Your task to perform on an android device: turn off location Image 0: 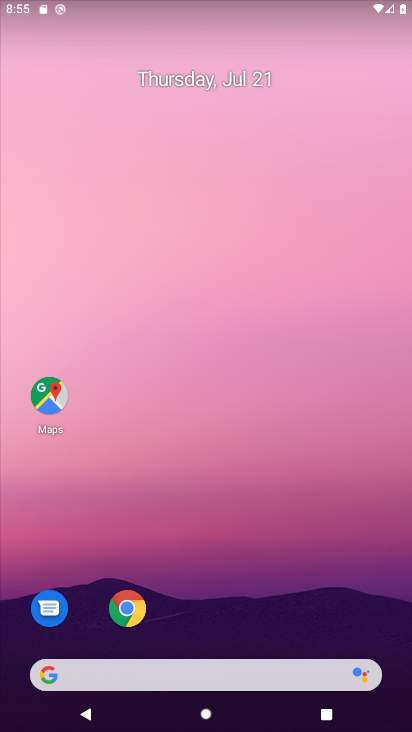
Step 0: drag from (199, 561) to (271, 210)
Your task to perform on an android device: turn off location Image 1: 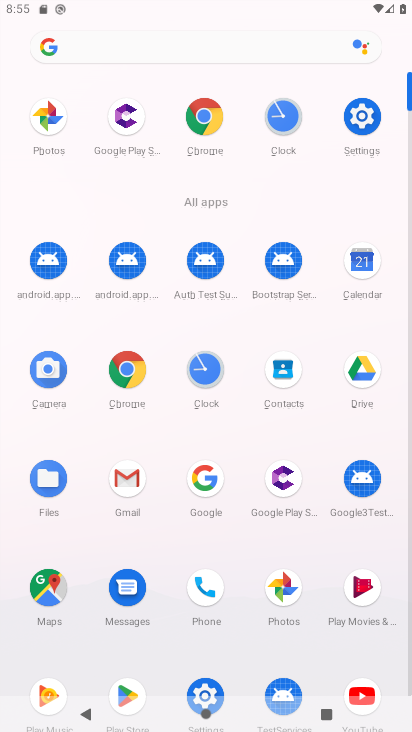
Step 1: click (356, 113)
Your task to perform on an android device: turn off location Image 2: 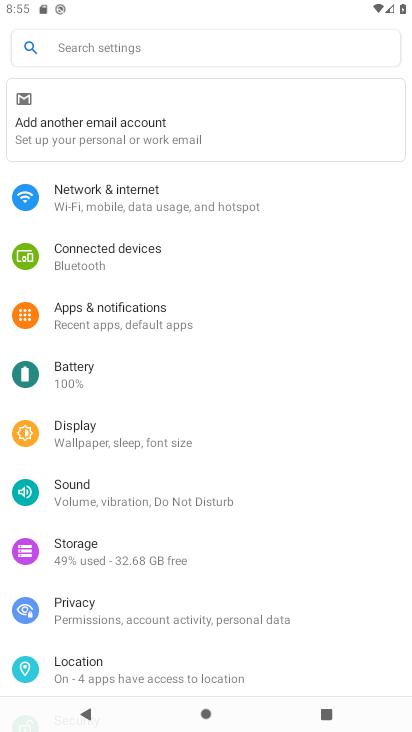
Step 2: click (89, 667)
Your task to perform on an android device: turn off location Image 3: 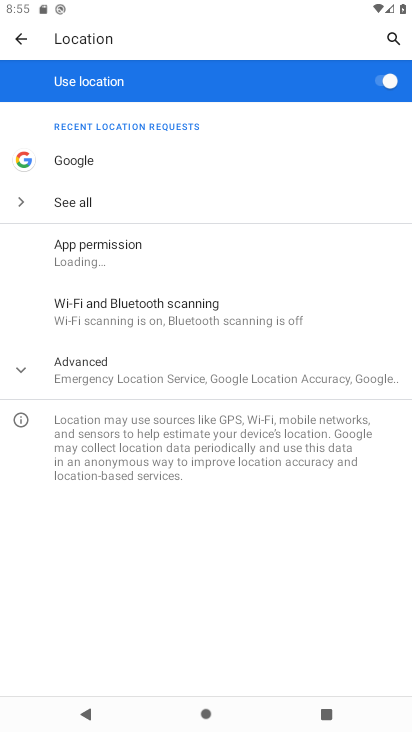
Step 3: click (386, 76)
Your task to perform on an android device: turn off location Image 4: 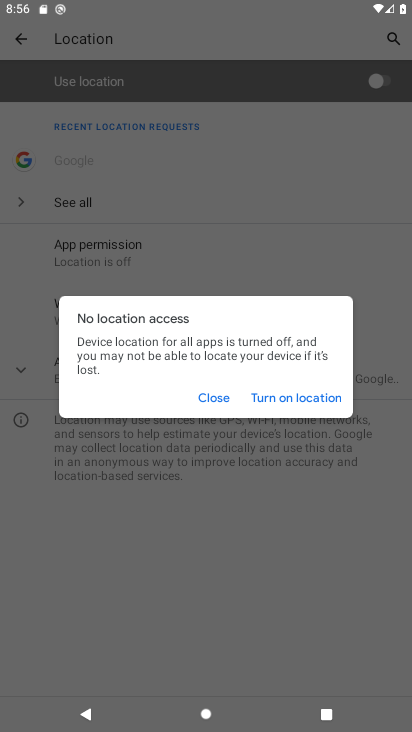
Step 4: task complete